Your task to perform on an android device: Search for hotels in Zurich Image 0: 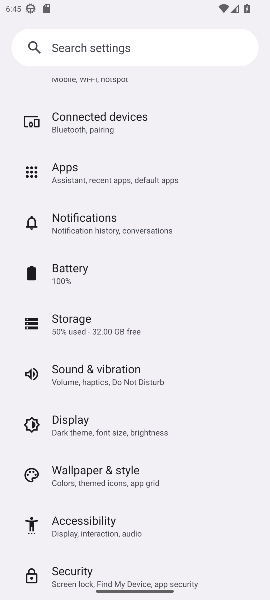
Step 0: press home button
Your task to perform on an android device: Search for hotels in Zurich Image 1: 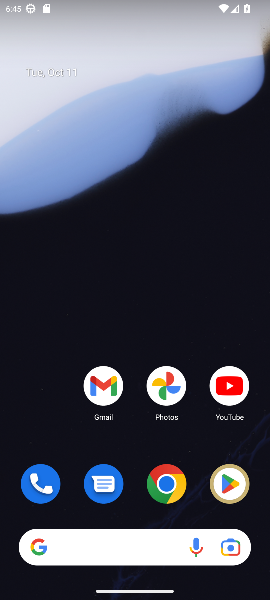
Step 1: click (169, 486)
Your task to perform on an android device: Search for hotels in Zurich Image 2: 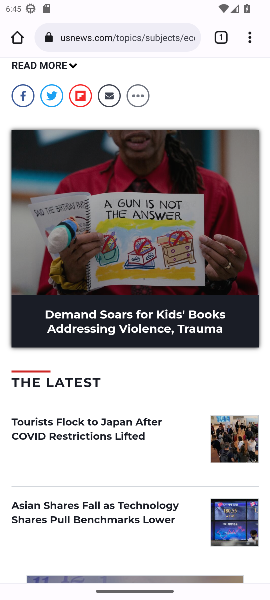
Step 2: click (129, 40)
Your task to perform on an android device: Search for hotels in Zurich Image 3: 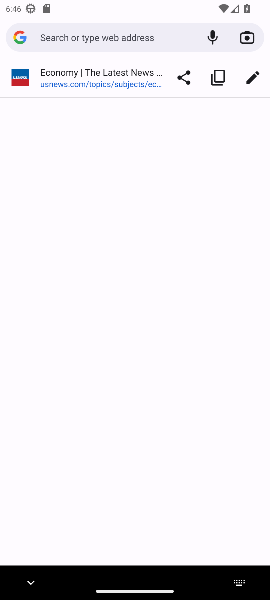
Step 3: type "Hotels in Zurich"
Your task to perform on an android device: Search for hotels in Zurich Image 4: 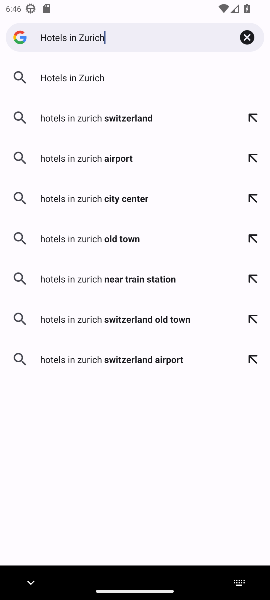
Step 4: click (79, 76)
Your task to perform on an android device: Search for hotels in Zurich Image 5: 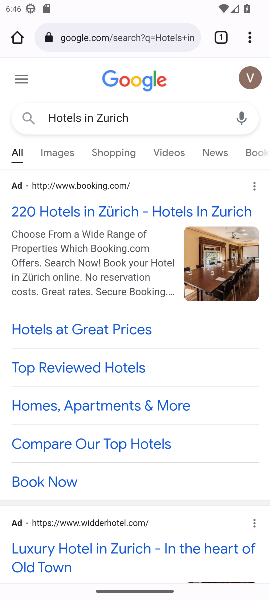
Step 5: drag from (107, 401) to (191, 195)
Your task to perform on an android device: Search for hotels in Zurich Image 6: 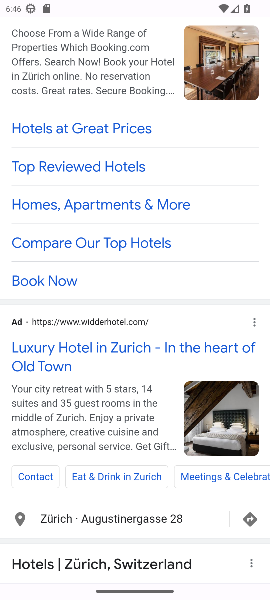
Step 6: drag from (114, 471) to (195, 168)
Your task to perform on an android device: Search for hotels in Zurich Image 7: 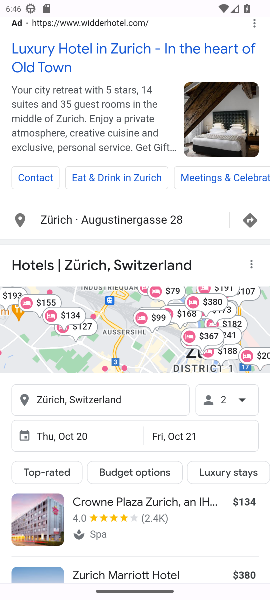
Step 7: drag from (102, 321) to (183, 187)
Your task to perform on an android device: Search for hotels in Zurich Image 8: 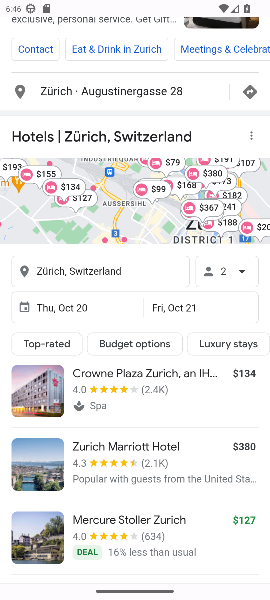
Step 8: drag from (130, 448) to (195, 280)
Your task to perform on an android device: Search for hotels in Zurich Image 9: 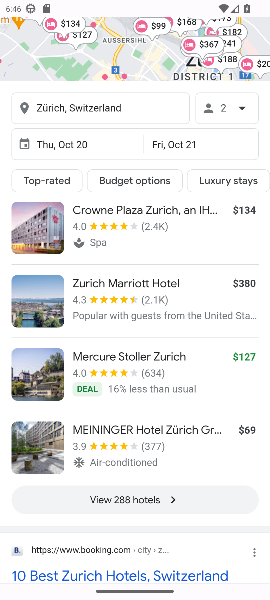
Step 9: click (130, 498)
Your task to perform on an android device: Search for hotels in Zurich Image 10: 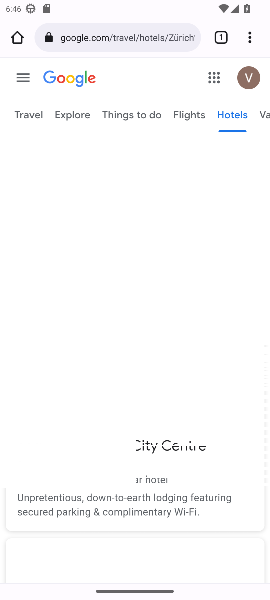
Step 10: task complete